Your task to perform on an android device: read, delete, or share a saved page in the chrome app Image 0: 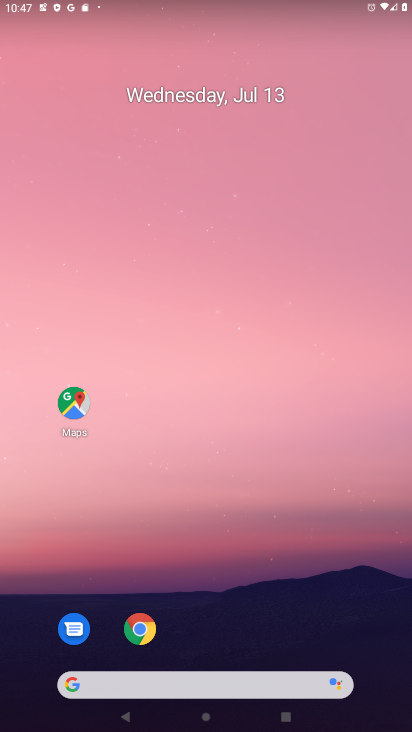
Step 0: click (131, 629)
Your task to perform on an android device: read, delete, or share a saved page in the chrome app Image 1: 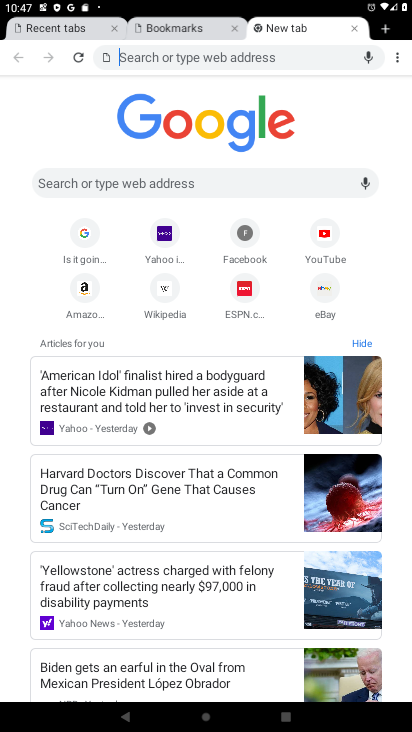
Step 1: click (394, 60)
Your task to perform on an android device: read, delete, or share a saved page in the chrome app Image 2: 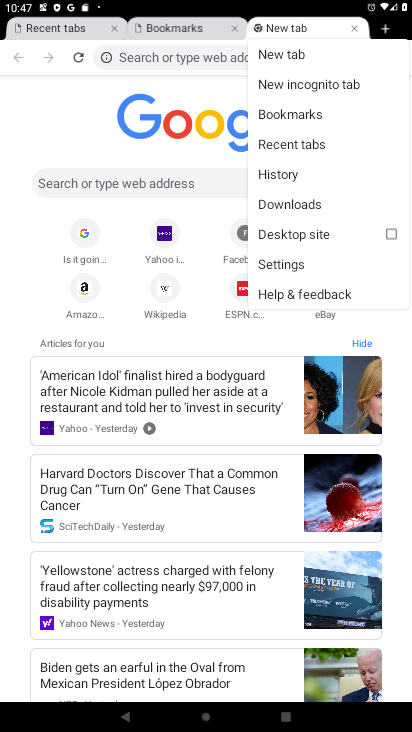
Step 2: click (307, 197)
Your task to perform on an android device: read, delete, or share a saved page in the chrome app Image 3: 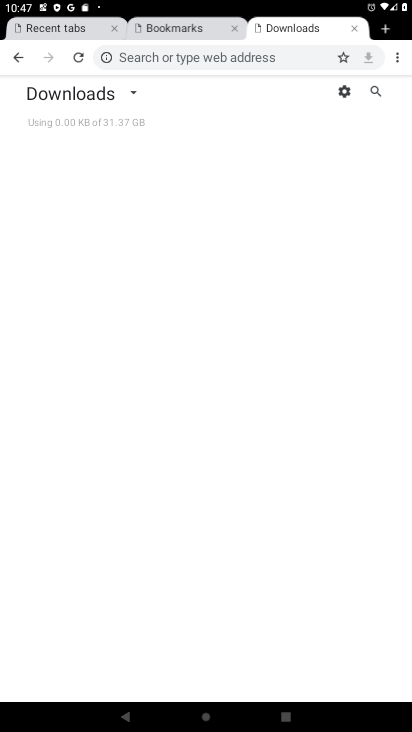
Step 3: task complete